Your task to perform on an android device: Turn off the flashlight Image 0: 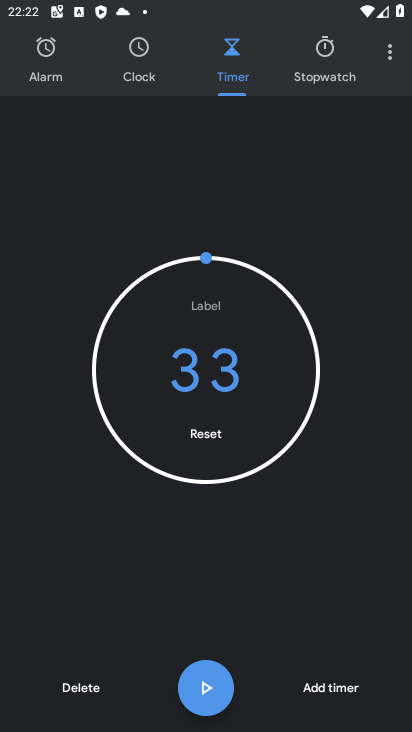
Step 0: click (132, 600)
Your task to perform on an android device: Turn off the flashlight Image 1: 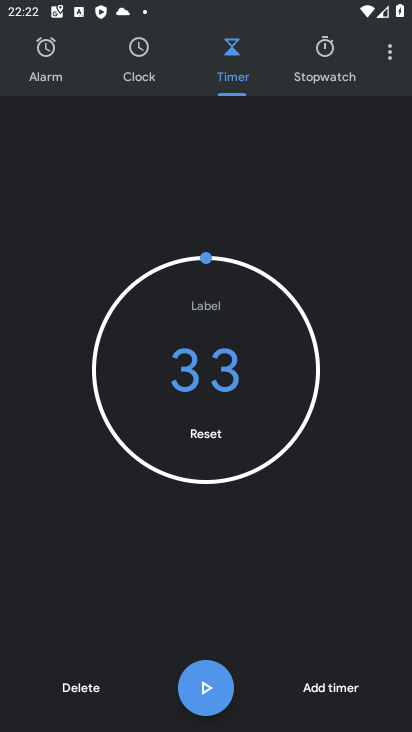
Step 1: press home button
Your task to perform on an android device: Turn off the flashlight Image 2: 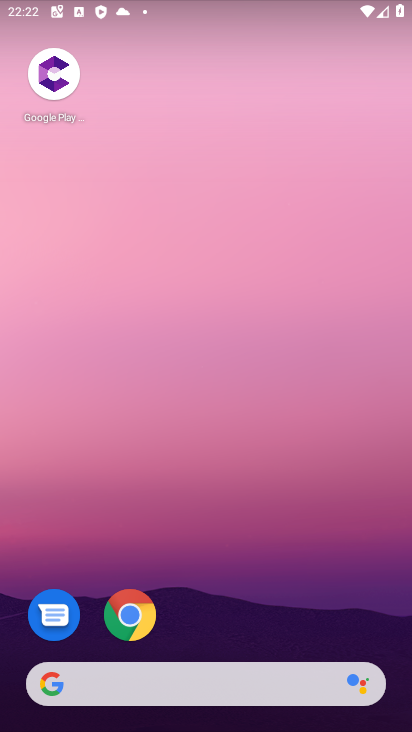
Step 2: drag from (406, 713) to (402, 156)
Your task to perform on an android device: Turn off the flashlight Image 3: 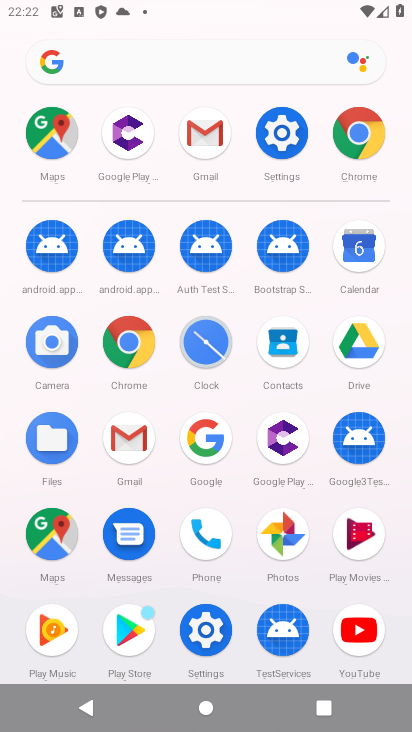
Step 3: click (283, 134)
Your task to perform on an android device: Turn off the flashlight Image 4: 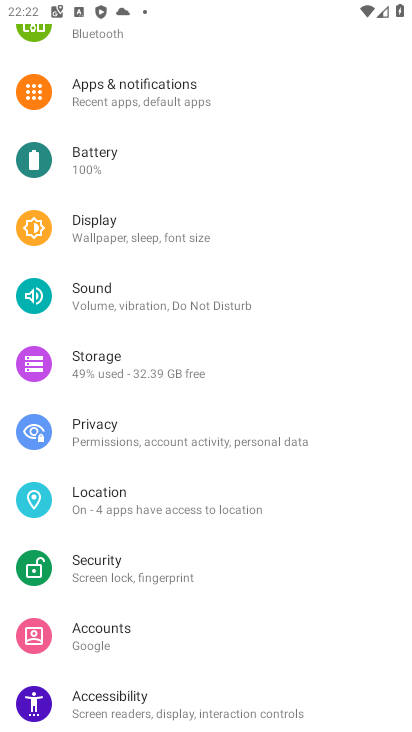
Step 4: click (93, 234)
Your task to perform on an android device: Turn off the flashlight Image 5: 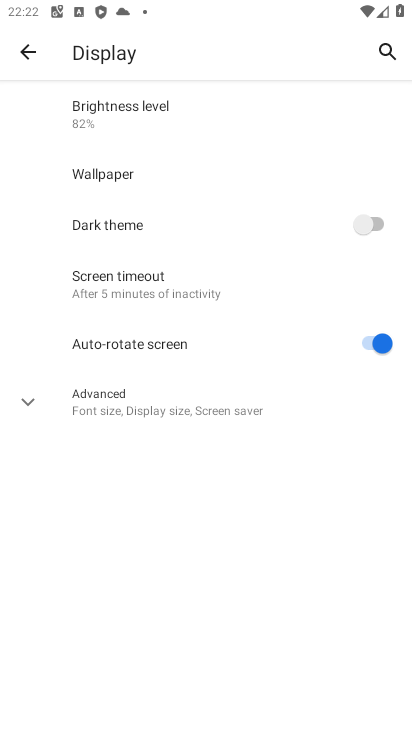
Step 5: task complete